Your task to perform on an android device: Go to sound settings Image 0: 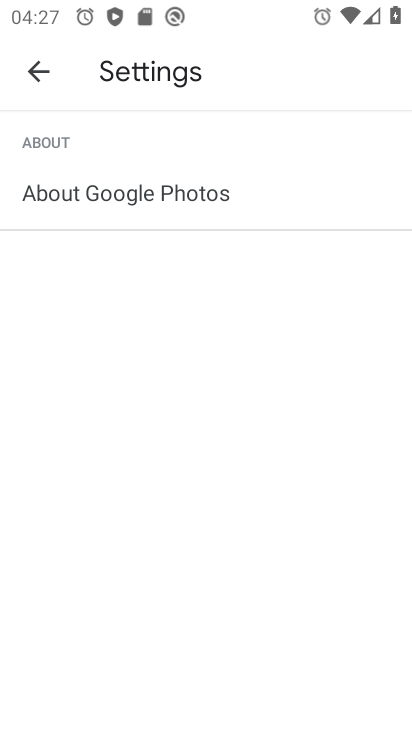
Step 0: press home button
Your task to perform on an android device: Go to sound settings Image 1: 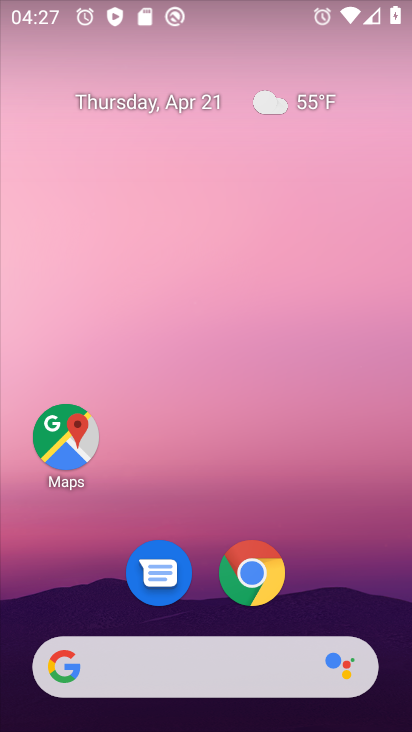
Step 1: drag from (361, 606) to (317, 127)
Your task to perform on an android device: Go to sound settings Image 2: 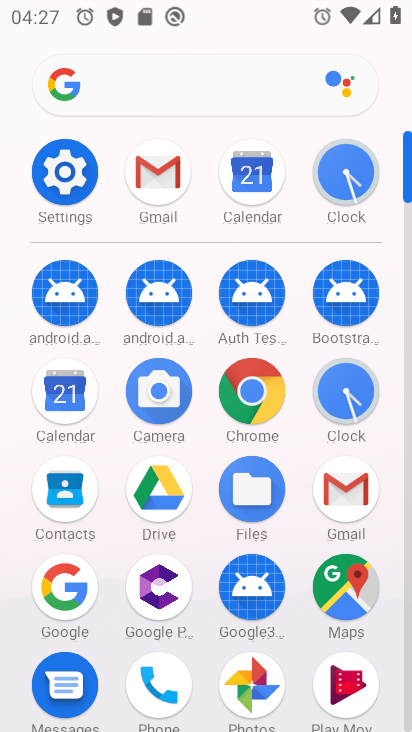
Step 2: click (406, 689)
Your task to perform on an android device: Go to sound settings Image 3: 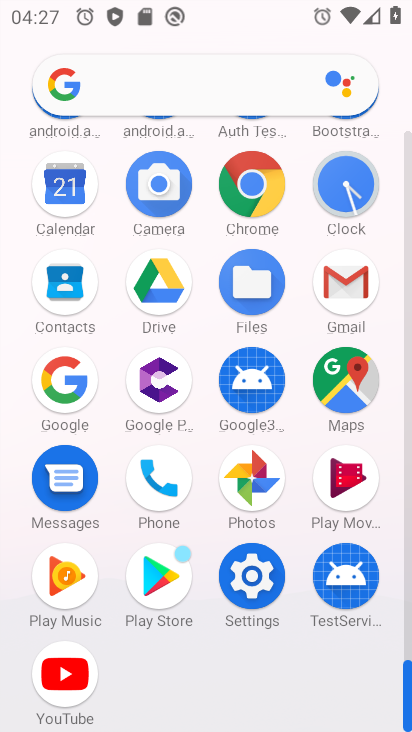
Step 3: click (248, 576)
Your task to perform on an android device: Go to sound settings Image 4: 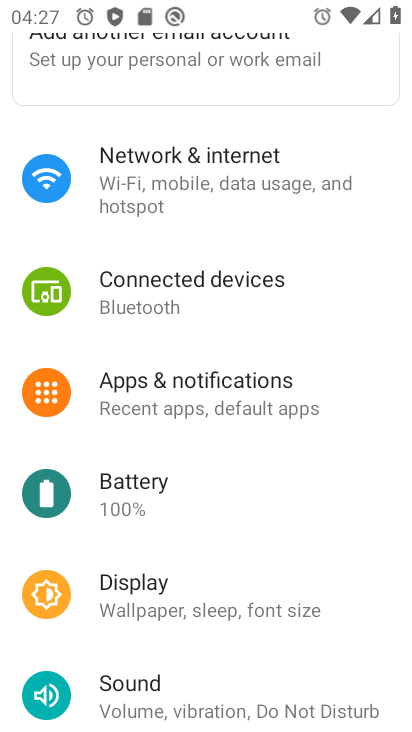
Step 4: drag from (228, 626) to (290, 333)
Your task to perform on an android device: Go to sound settings Image 5: 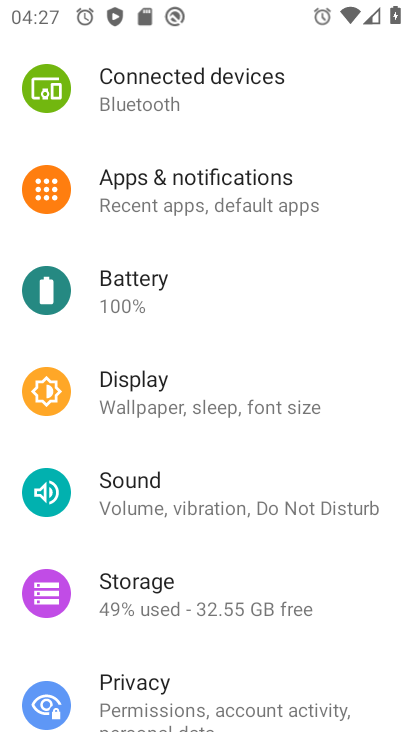
Step 5: click (143, 500)
Your task to perform on an android device: Go to sound settings Image 6: 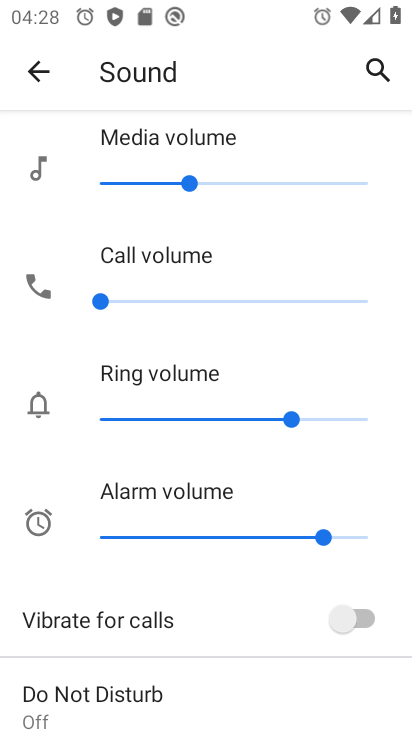
Step 6: drag from (284, 640) to (282, 522)
Your task to perform on an android device: Go to sound settings Image 7: 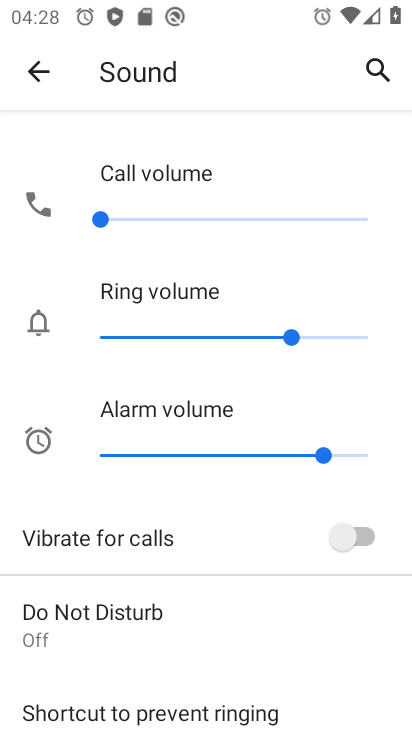
Step 7: drag from (282, 603) to (312, 352)
Your task to perform on an android device: Go to sound settings Image 8: 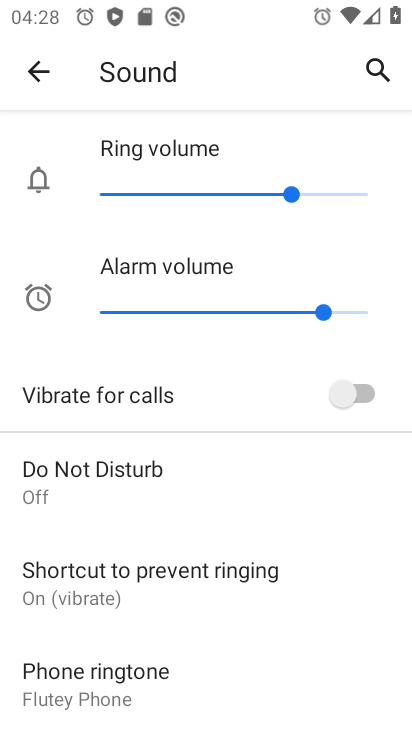
Step 8: drag from (293, 556) to (285, 282)
Your task to perform on an android device: Go to sound settings Image 9: 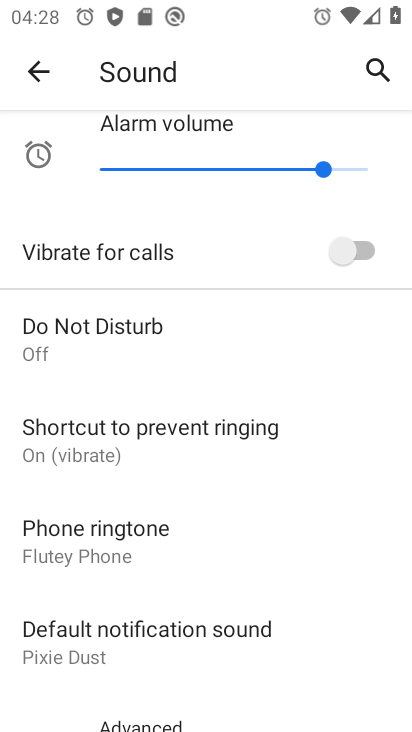
Step 9: drag from (246, 532) to (271, 238)
Your task to perform on an android device: Go to sound settings Image 10: 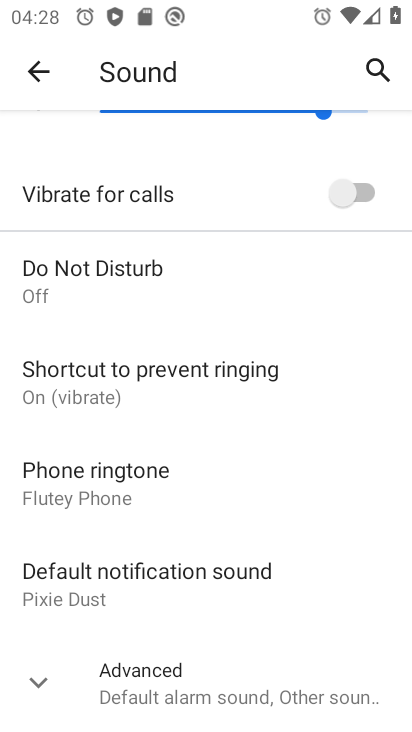
Step 10: click (39, 681)
Your task to perform on an android device: Go to sound settings Image 11: 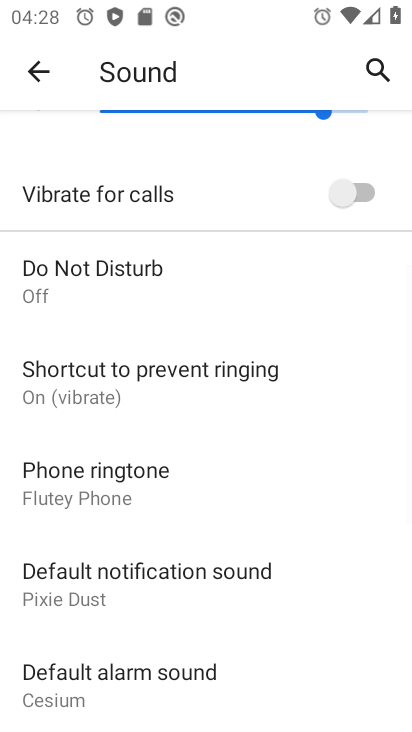
Step 11: task complete